Your task to perform on an android device: find snoozed emails in the gmail app Image 0: 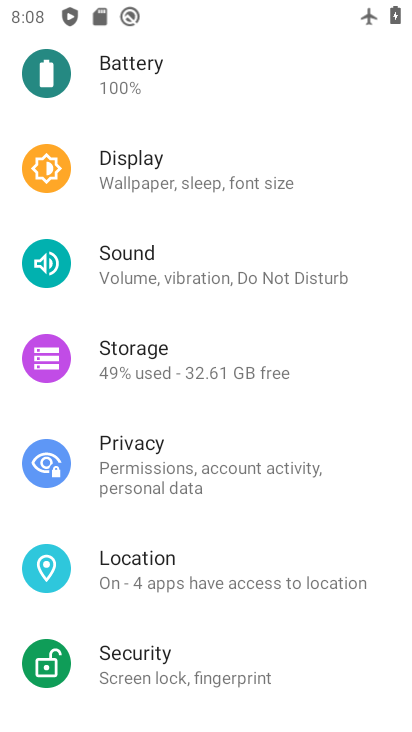
Step 0: press home button
Your task to perform on an android device: find snoozed emails in the gmail app Image 1: 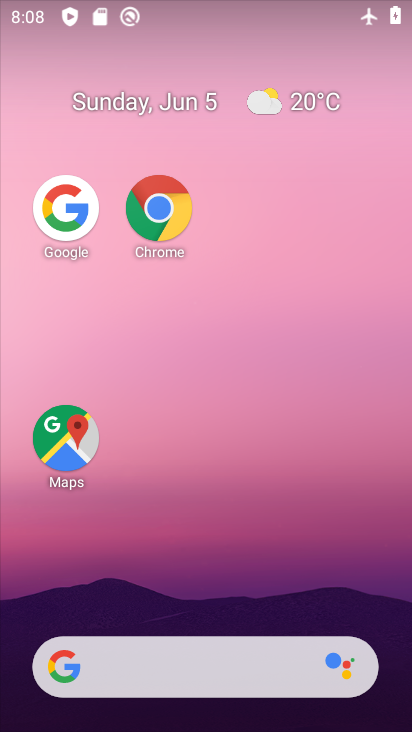
Step 1: drag from (276, 615) to (275, 89)
Your task to perform on an android device: find snoozed emails in the gmail app Image 2: 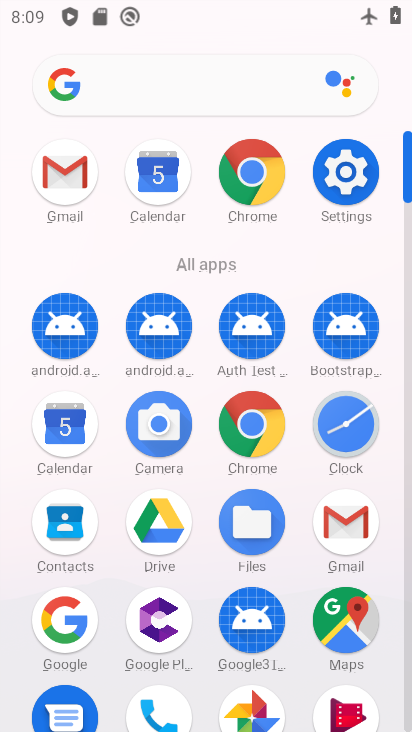
Step 2: click (344, 542)
Your task to perform on an android device: find snoozed emails in the gmail app Image 3: 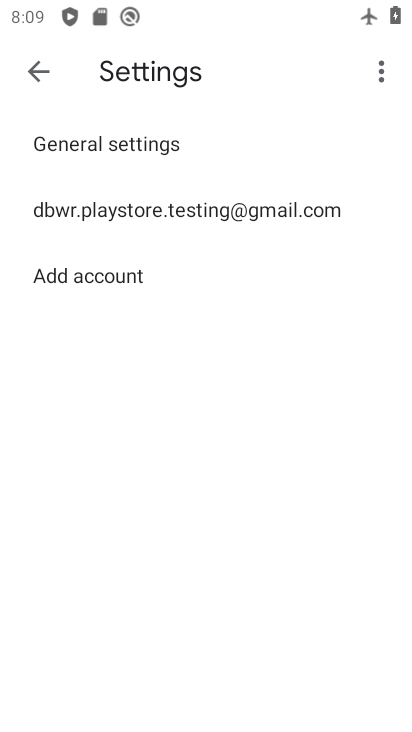
Step 3: click (37, 65)
Your task to perform on an android device: find snoozed emails in the gmail app Image 4: 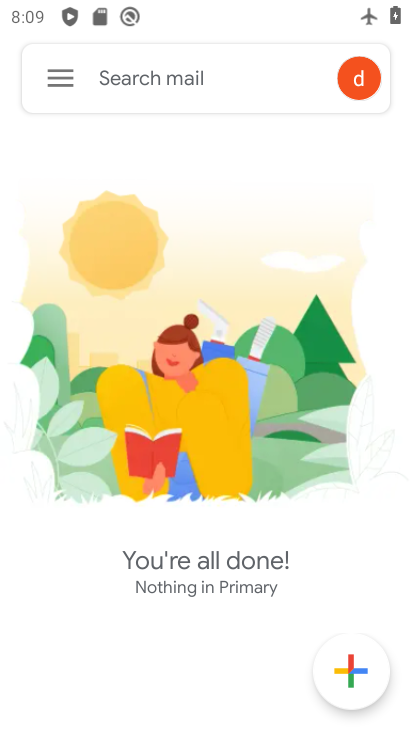
Step 4: click (57, 77)
Your task to perform on an android device: find snoozed emails in the gmail app Image 5: 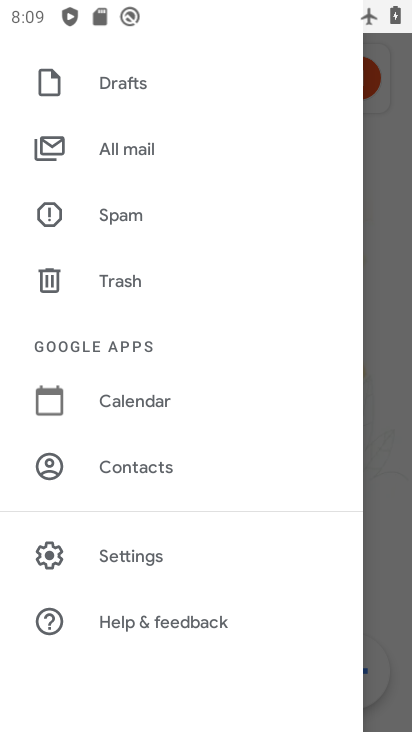
Step 5: drag from (136, 158) to (119, 584)
Your task to perform on an android device: find snoozed emails in the gmail app Image 6: 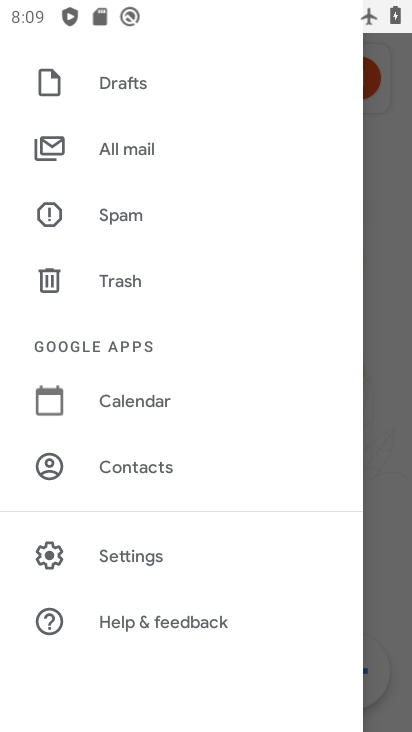
Step 6: drag from (301, 244) to (239, 513)
Your task to perform on an android device: find snoozed emails in the gmail app Image 7: 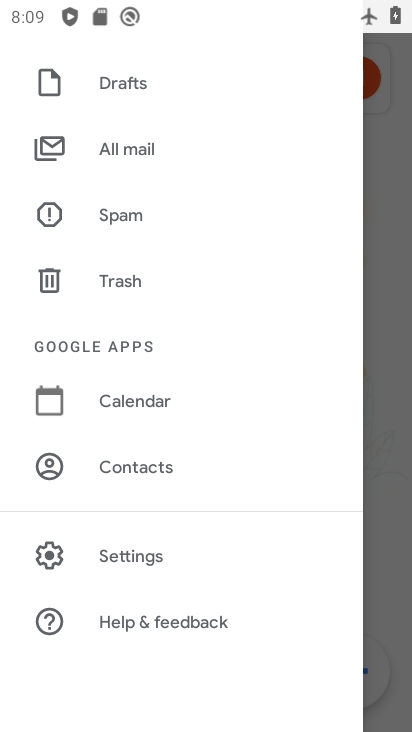
Step 7: drag from (276, 176) to (188, 671)
Your task to perform on an android device: find snoozed emails in the gmail app Image 8: 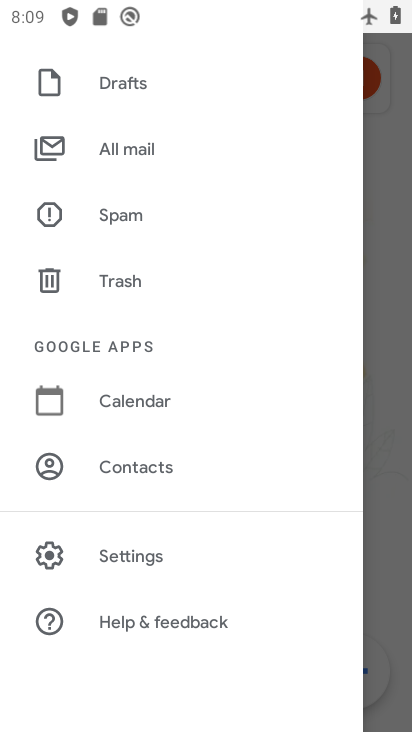
Step 8: drag from (211, 253) to (111, 667)
Your task to perform on an android device: find snoozed emails in the gmail app Image 9: 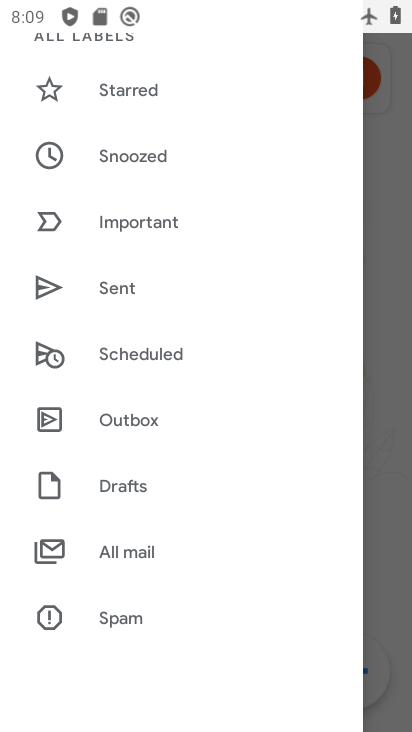
Step 9: click (146, 145)
Your task to perform on an android device: find snoozed emails in the gmail app Image 10: 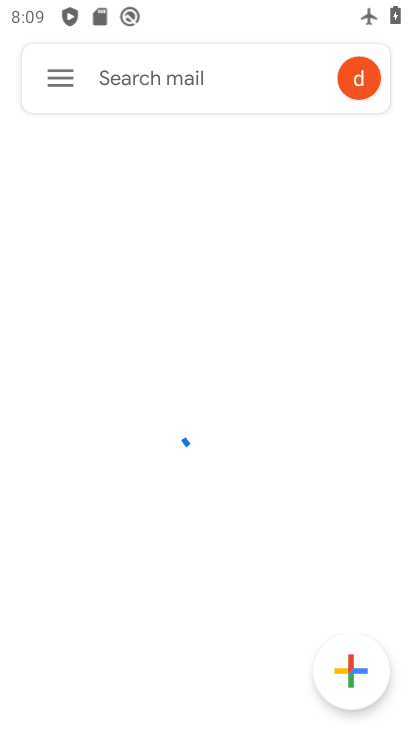
Step 10: task complete